Your task to perform on an android device: open app "Indeed Job Search" (install if not already installed) and go to login screen Image 0: 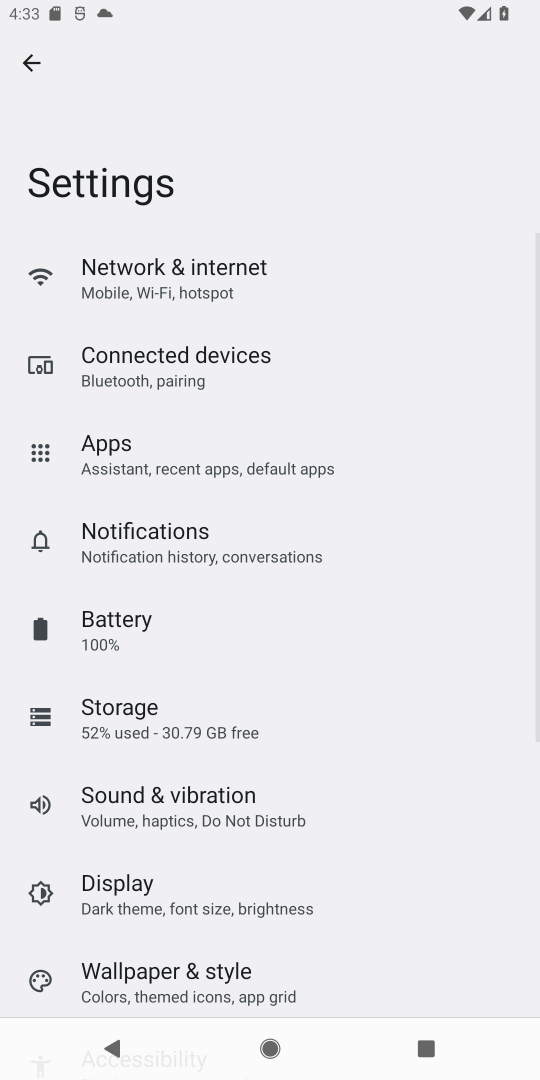
Step 0: press home button
Your task to perform on an android device: open app "Indeed Job Search" (install if not already installed) and go to login screen Image 1: 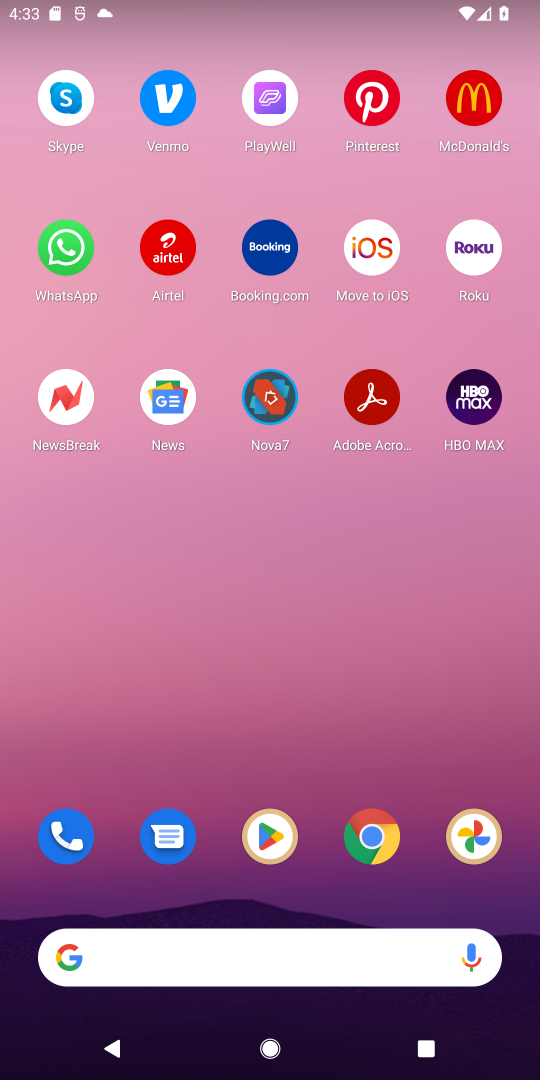
Step 1: click (269, 835)
Your task to perform on an android device: open app "Indeed Job Search" (install if not already installed) and go to login screen Image 2: 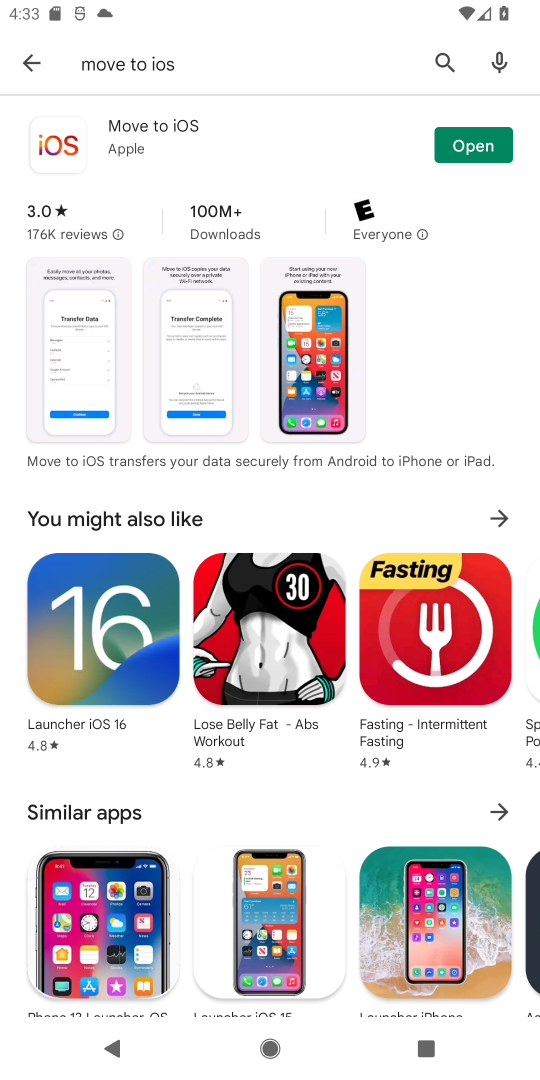
Step 2: click (448, 61)
Your task to perform on an android device: open app "Indeed Job Search" (install if not already installed) and go to login screen Image 3: 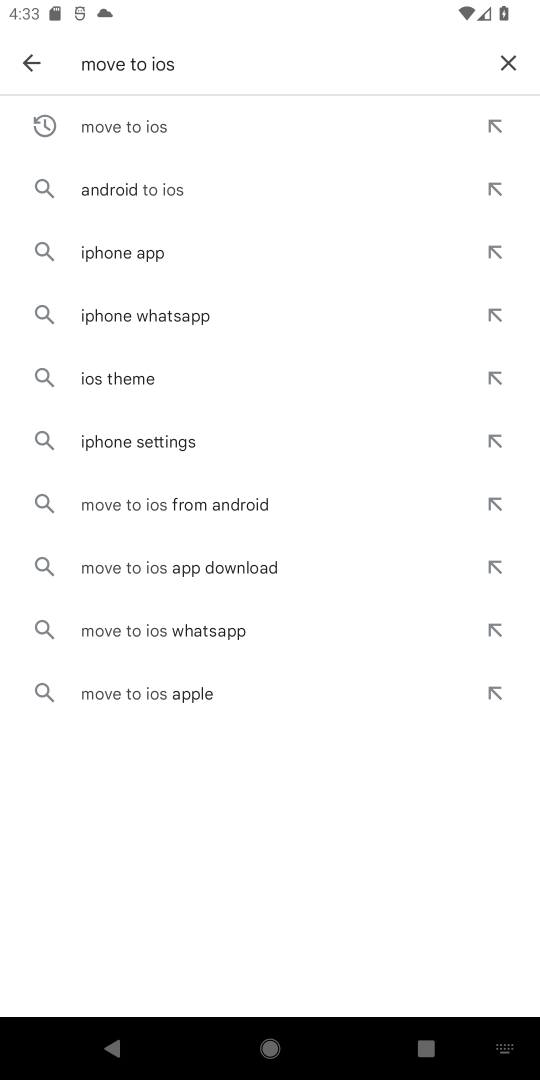
Step 3: click (505, 50)
Your task to perform on an android device: open app "Indeed Job Search" (install if not already installed) and go to login screen Image 4: 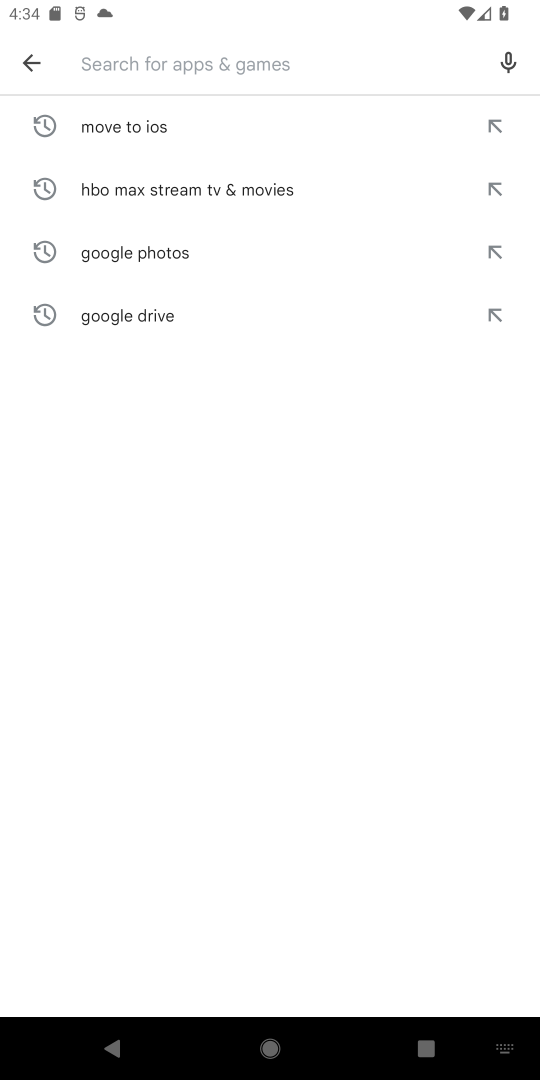
Step 4: type "Indeed Job Search"
Your task to perform on an android device: open app "Indeed Job Search" (install if not already installed) and go to login screen Image 5: 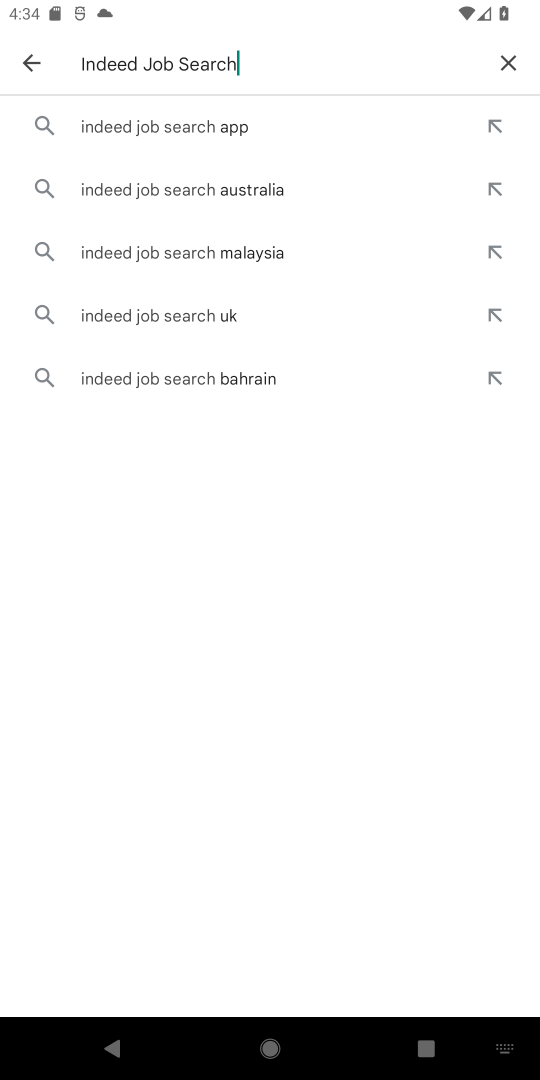
Step 5: click (178, 138)
Your task to perform on an android device: open app "Indeed Job Search" (install if not already installed) and go to login screen Image 6: 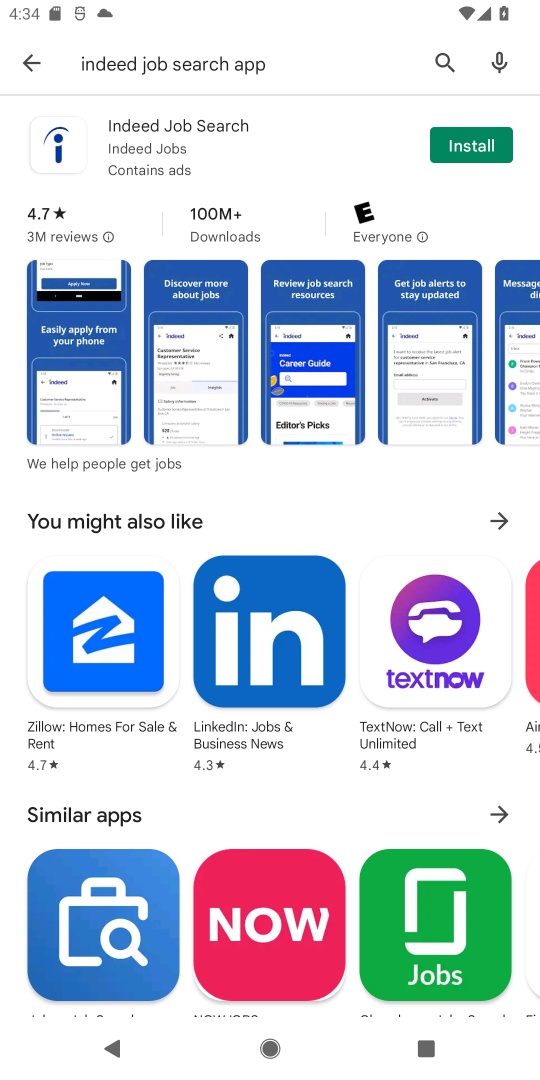
Step 6: click (472, 148)
Your task to perform on an android device: open app "Indeed Job Search" (install if not already installed) and go to login screen Image 7: 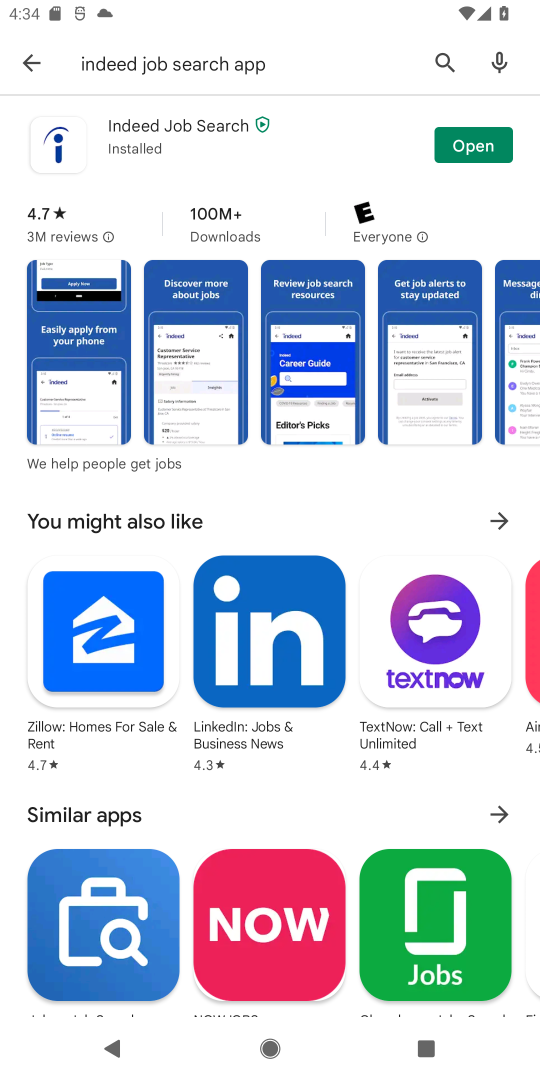
Step 7: click (474, 145)
Your task to perform on an android device: open app "Indeed Job Search" (install if not already installed) and go to login screen Image 8: 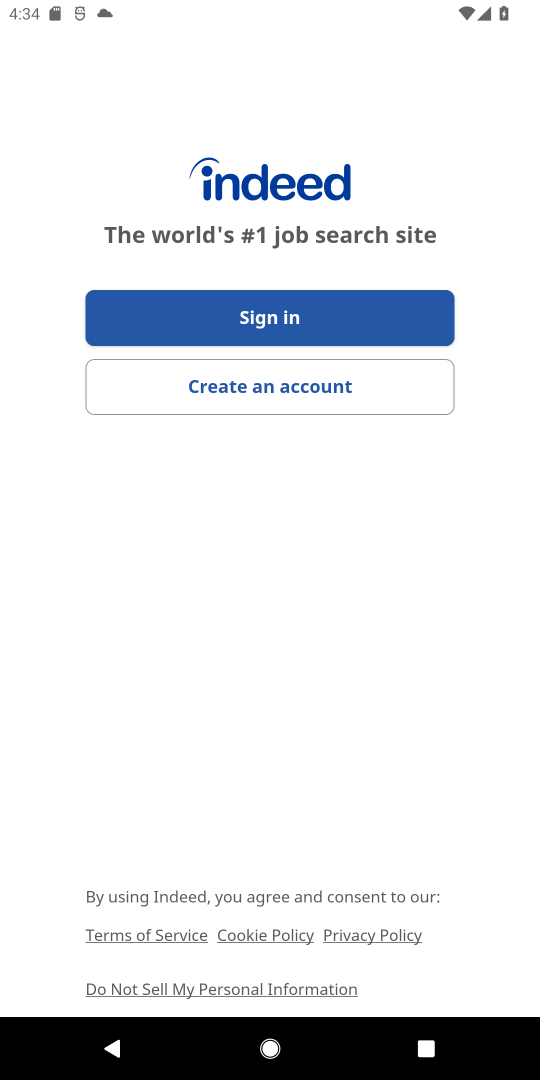
Step 8: click (283, 317)
Your task to perform on an android device: open app "Indeed Job Search" (install if not already installed) and go to login screen Image 9: 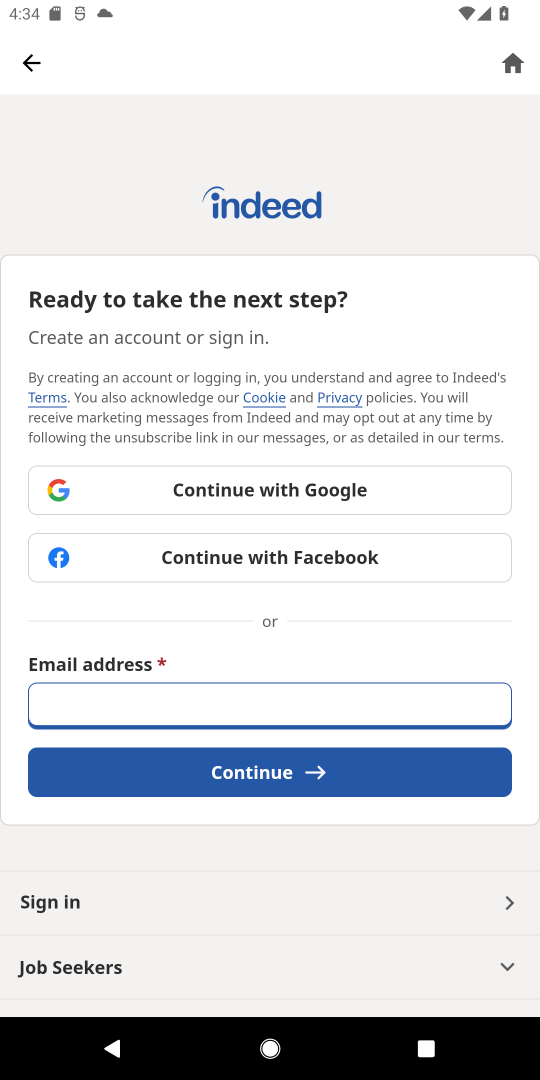
Step 9: task complete